Your task to perform on an android device: Turn off the flashlight Image 0: 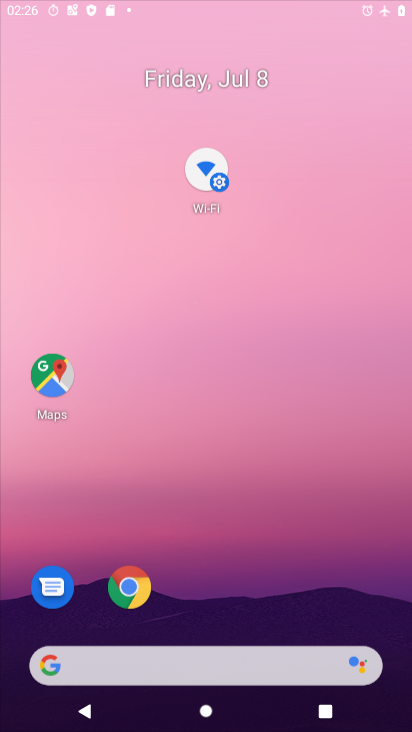
Step 0: click (199, 27)
Your task to perform on an android device: Turn off the flashlight Image 1: 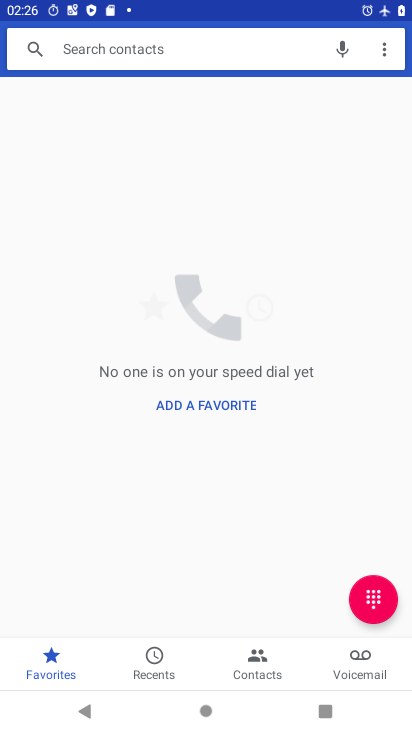
Step 1: drag from (220, 563) to (262, 172)
Your task to perform on an android device: Turn off the flashlight Image 2: 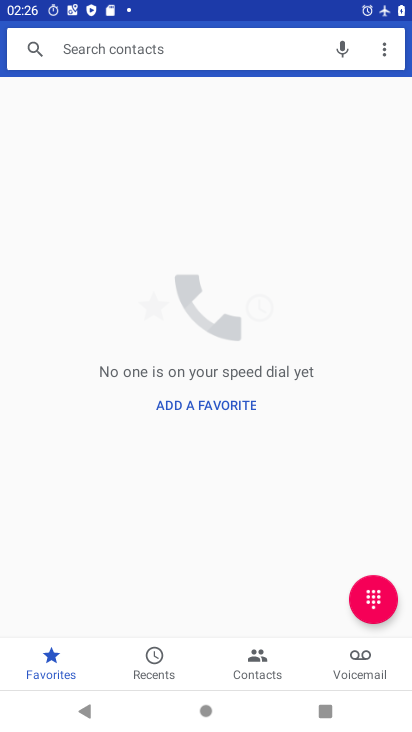
Step 2: drag from (248, 588) to (287, 354)
Your task to perform on an android device: Turn off the flashlight Image 3: 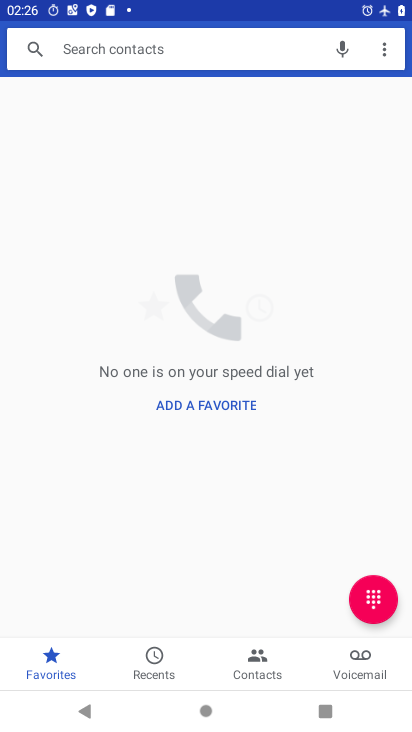
Step 3: press home button
Your task to perform on an android device: Turn off the flashlight Image 4: 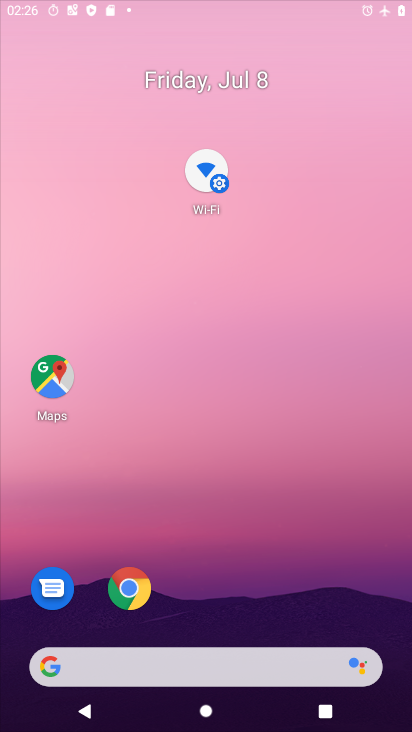
Step 4: drag from (210, 564) to (201, 167)
Your task to perform on an android device: Turn off the flashlight Image 5: 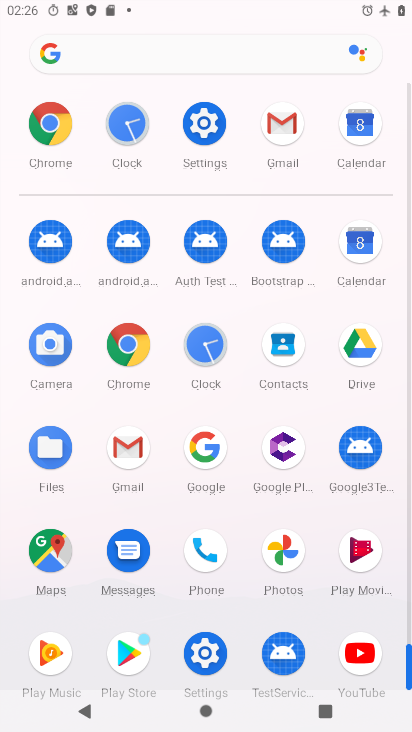
Step 5: click (201, 107)
Your task to perform on an android device: Turn off the flashlight Image 6: 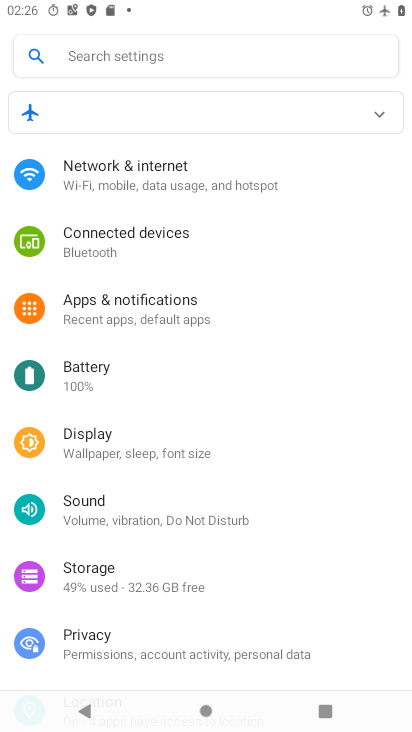
Step 6: click (167, 51)
Your task to perform on an android device: Turn off the flashlight Image 7: 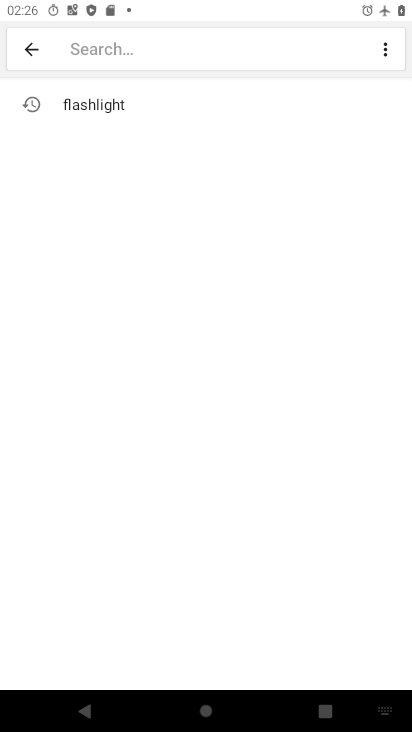
Step 7: click (93, 106)
Your task to perform on an android device: Turn off the flashlight Image 8: 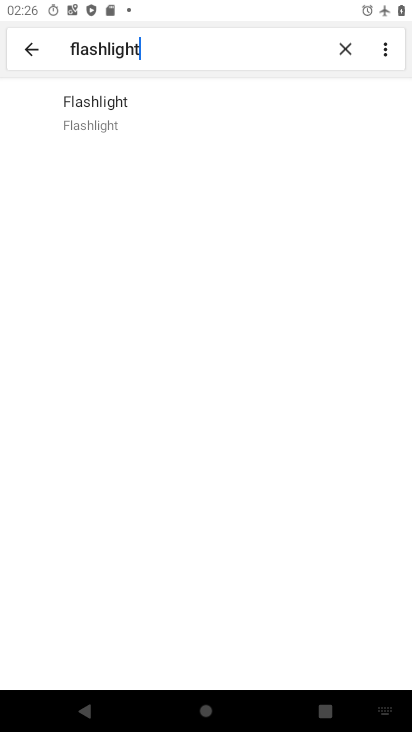
Step 8: drag from (271, 460) to (304, 191)
Your task to perform on an android device: Turn off the flashlight Image 9: 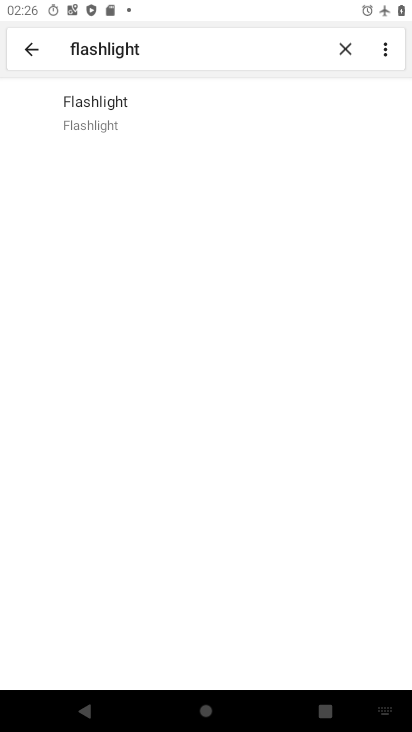
Step 9: click (160, 118)
Your task to perform on an android device: Turn off the flashlight Image 10: 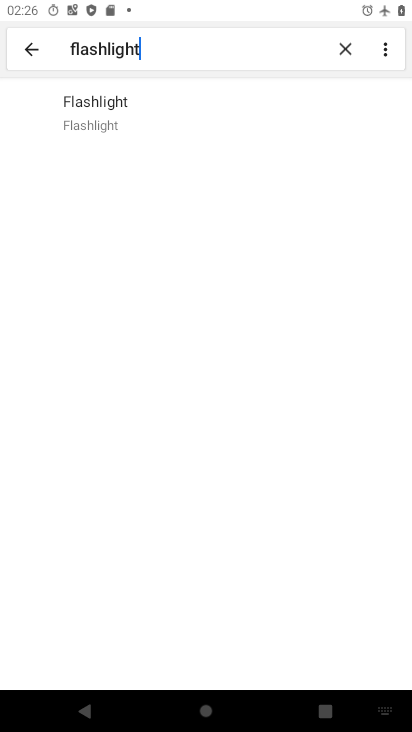
Step 10: click (119, 103)
Your task to perform on an android device: Turn off the flashlight Image 11: 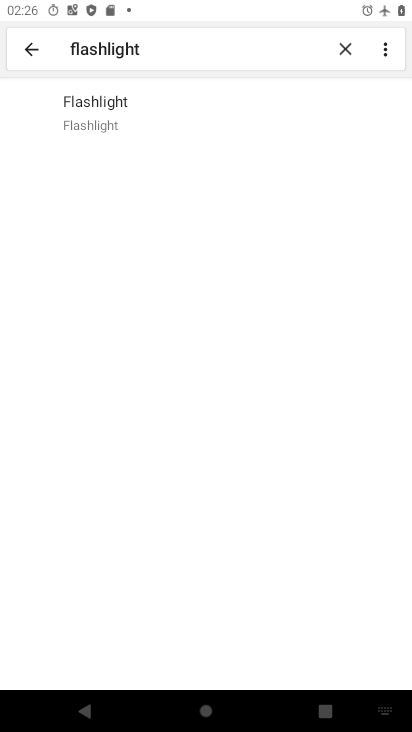
Step 11: task complete